Your task to perform on an android device: change the clock display to analog Image 0: 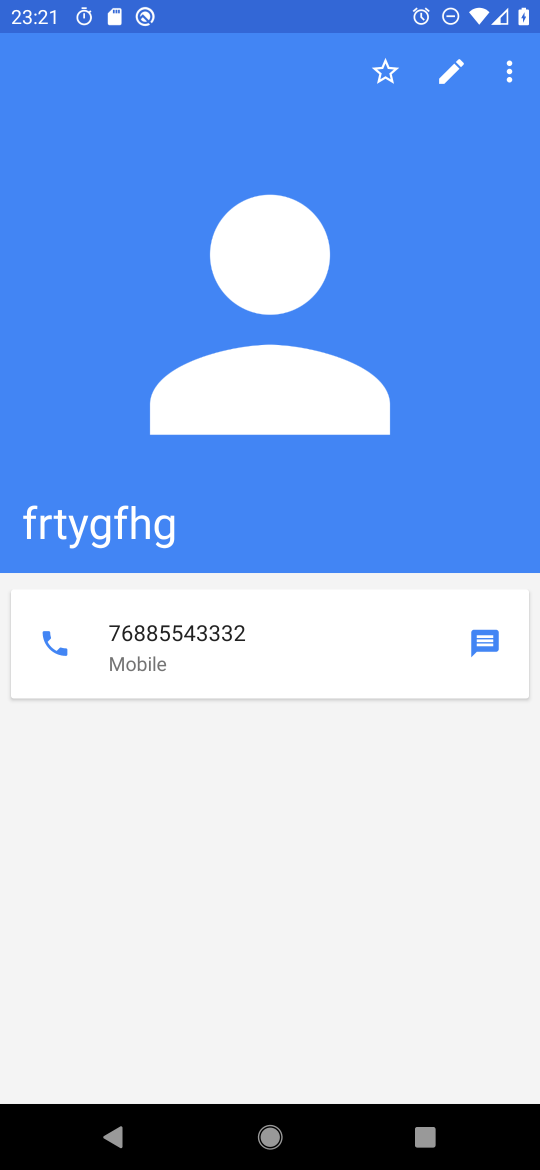
Step 0: drag from (262, 821) to (385, 488)
Your task to perform on an android device: change the clock display to analog Image 1: 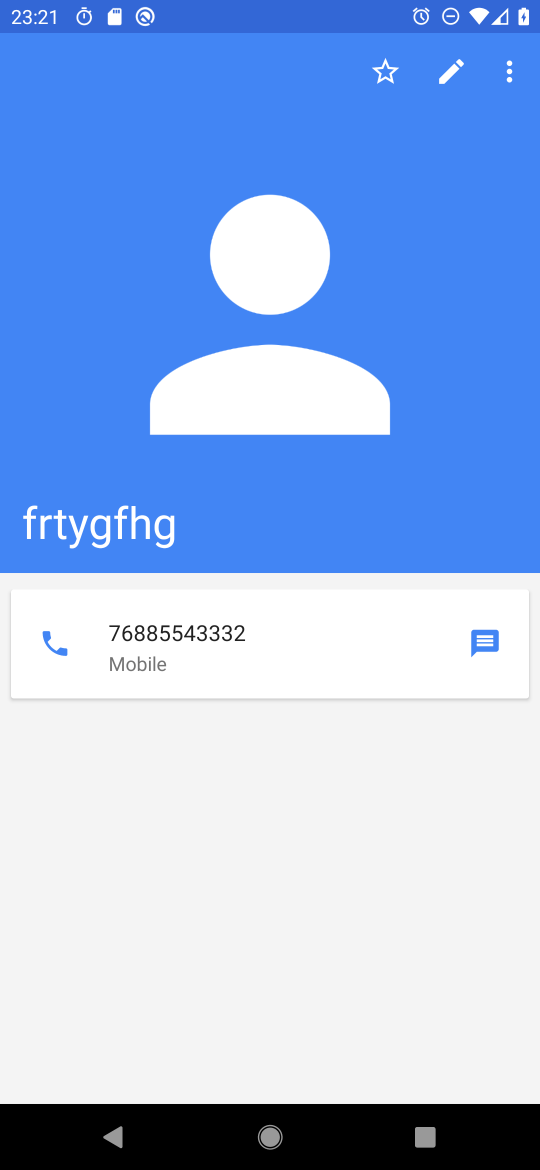
Step 1: press home button
Your task to perform on an android device: change the clock display to analog Image 2: 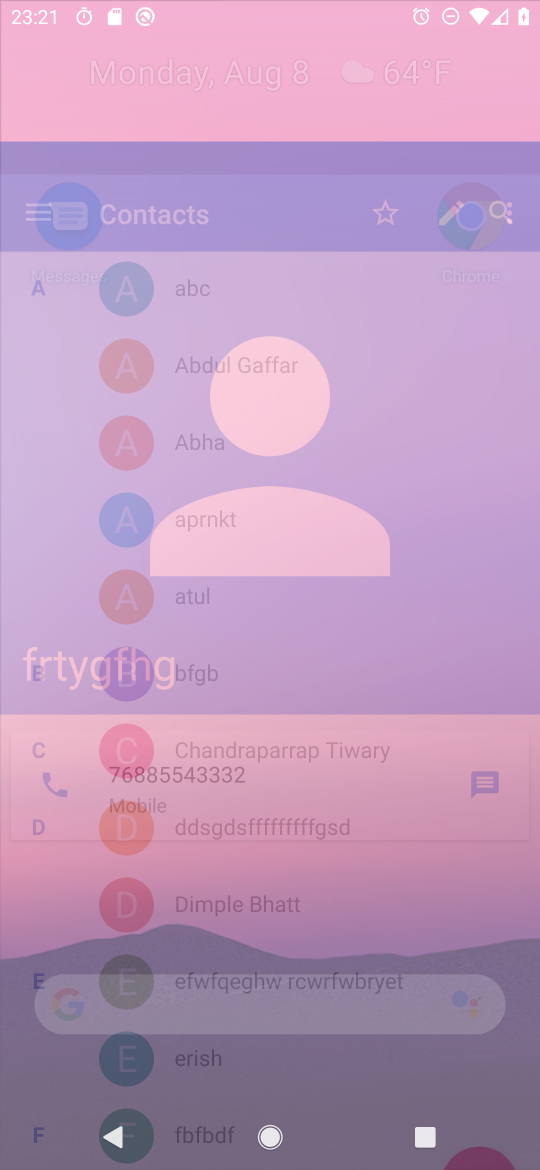
Step 2: drag from (235, 784) to (399, 58)
Your task to perform on an android device: change the clock display to analog Image 3: 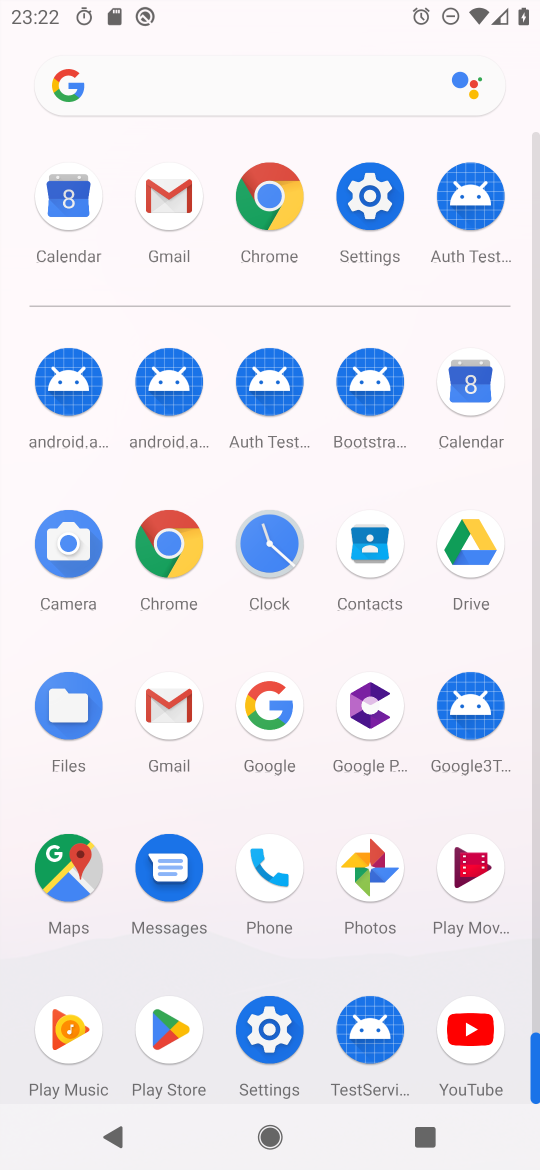
Step 3: click (269, 538)
Your task to perform on an android device: change the clock display to analog Image 4: 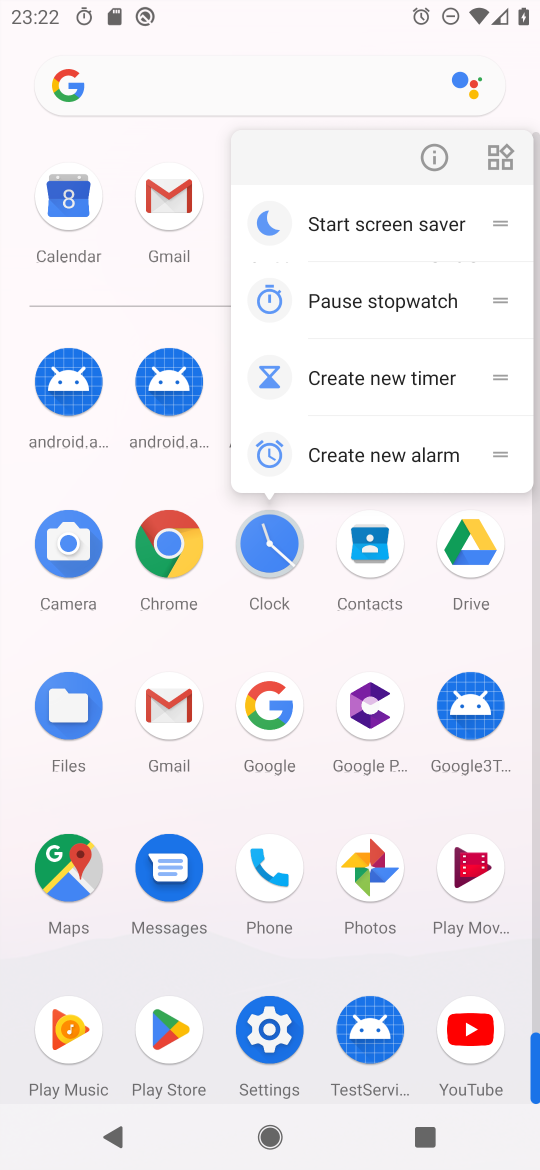
Step 4: click (425, 165)
Your task to perform on an android device: change the clock display to analog Image 5: 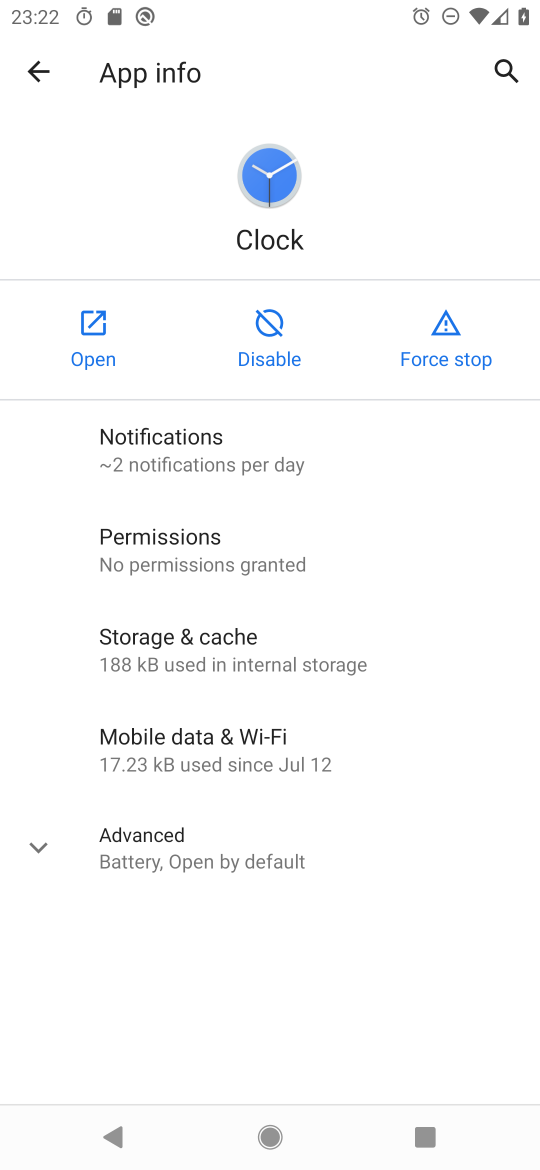
Step 5: click (102, 340)
Your task to perform on an android device: change the clock display to analog Image 6: 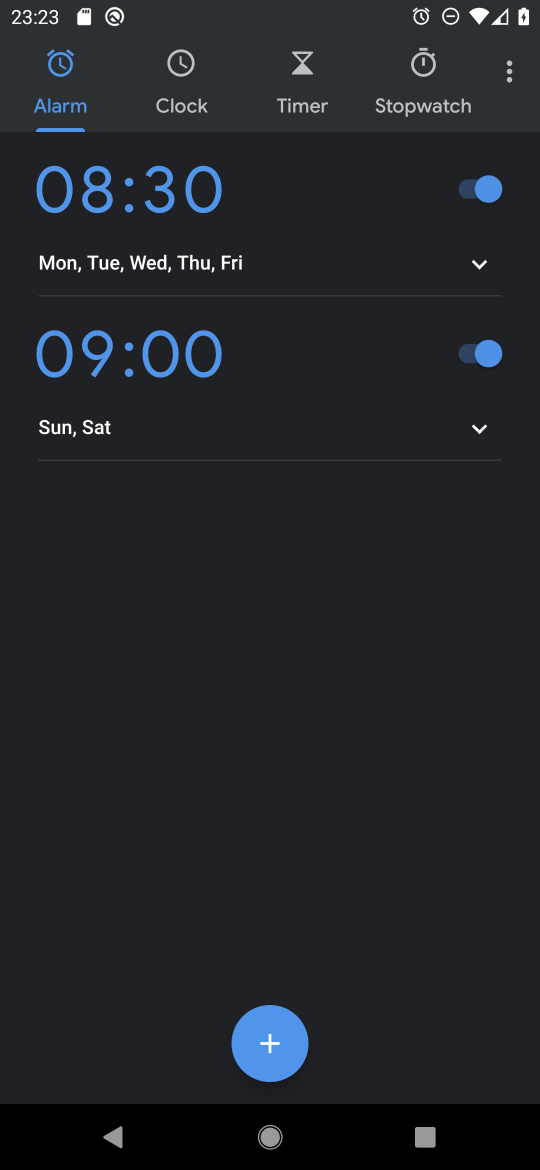
Step 6: click (505, 60)
Your task to perform on an android device: change the clock display to analog Image 7: 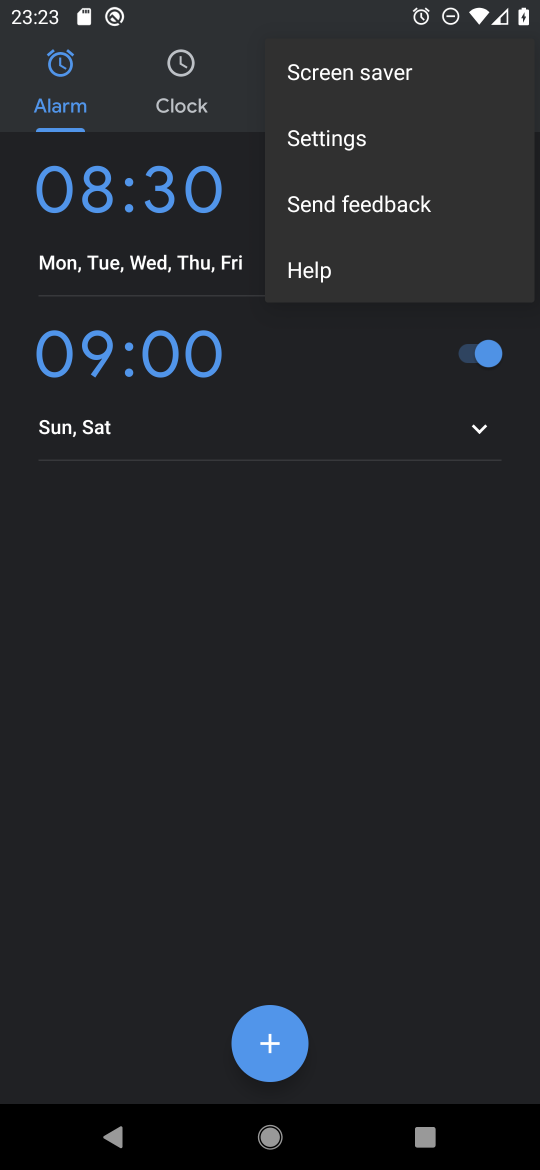
Step 7: click (350, 124)
Your task to perform on an android device: change the clock display to analog Image 8: 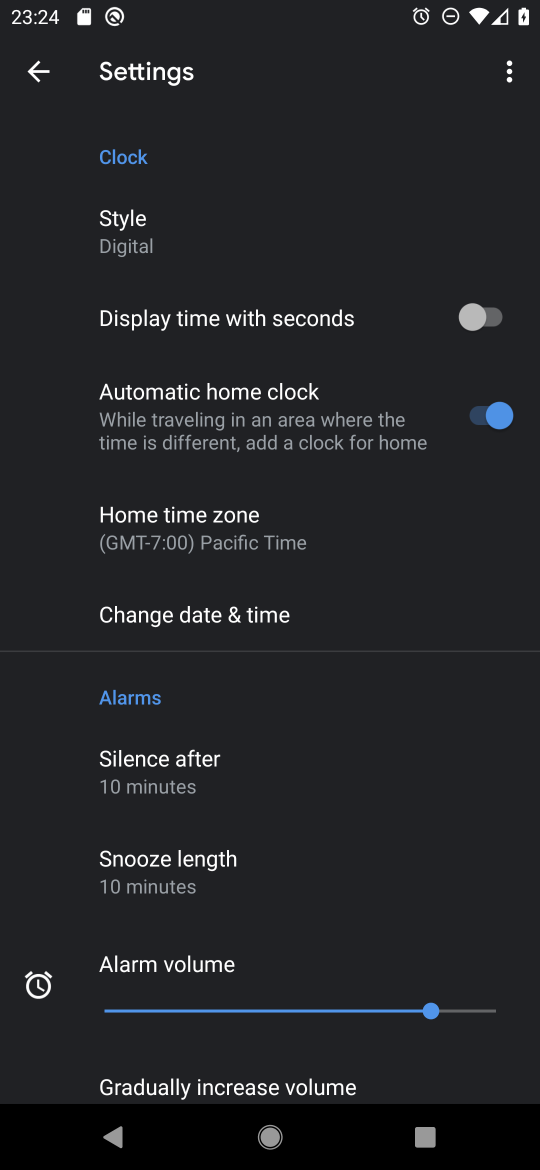
Step 8: click (194, 225)
Your task to perform on an android device: change the clock display to analog Image 9: 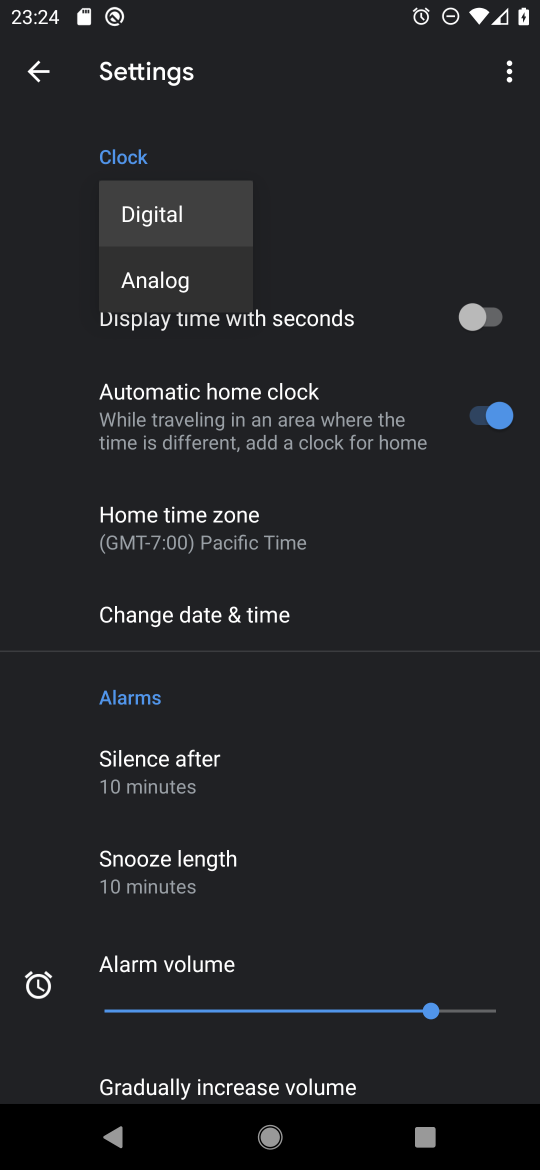
Step 9: click (186, 281)
Your task to perform on an android device: change the clock display to analog Image 10: 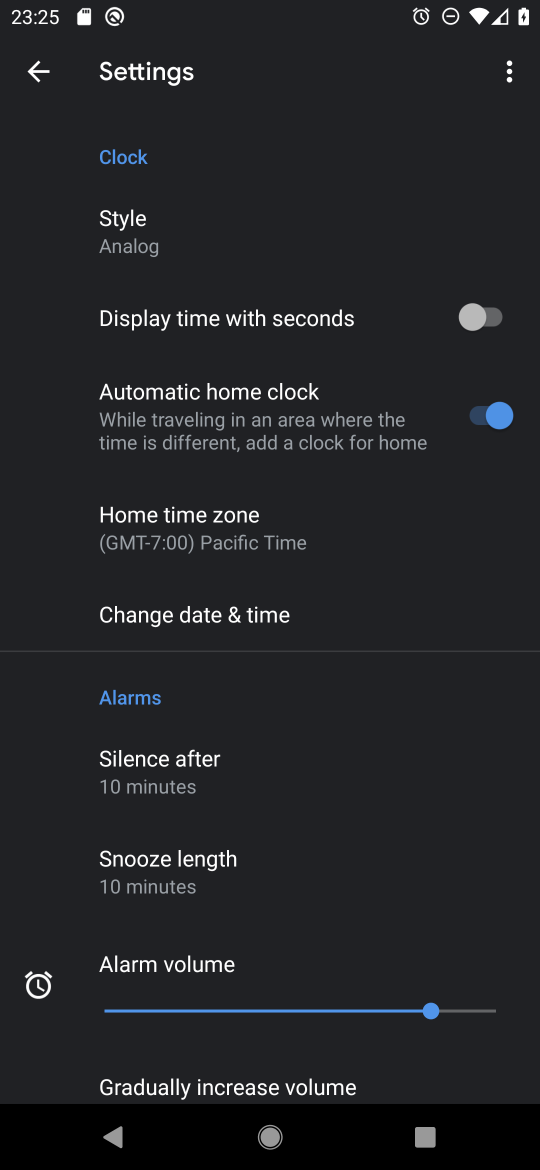
Step 10: task complete